Your task to perform on an android device: all mails in gmail Image 0: 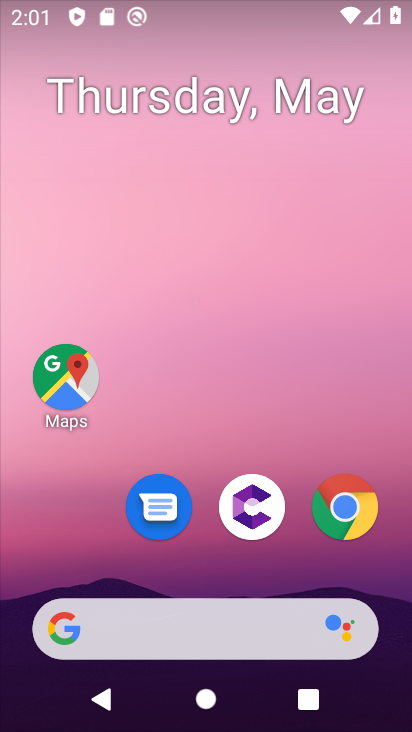
Step 0: drag from (316, 559) to (285, 140)
Your task to perform on an android device: all mails in gmail Image 1: 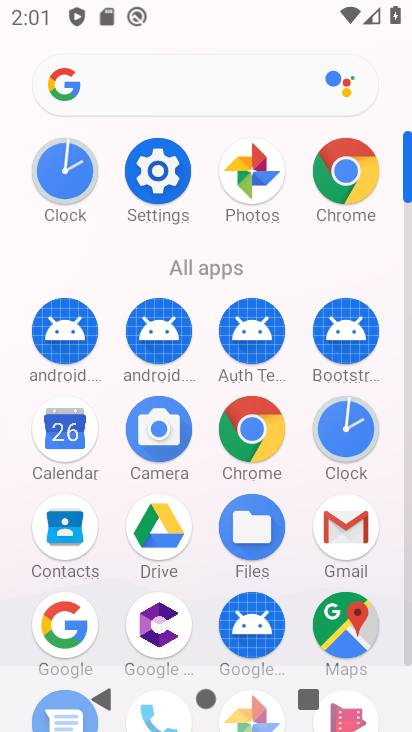
Step 1: click (336, 520)
Your task to perform on an android device: all mails in gmail Image 2: 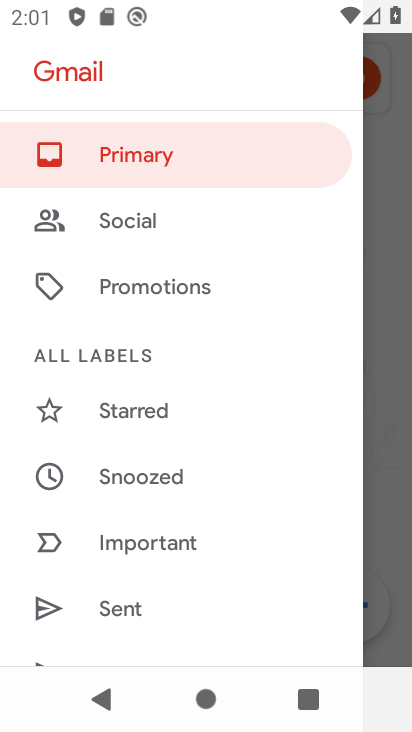
Step 2: drag from (245, 257) to (252, 65)
Your task to perform on an android device: all mails in gmail Image 3: 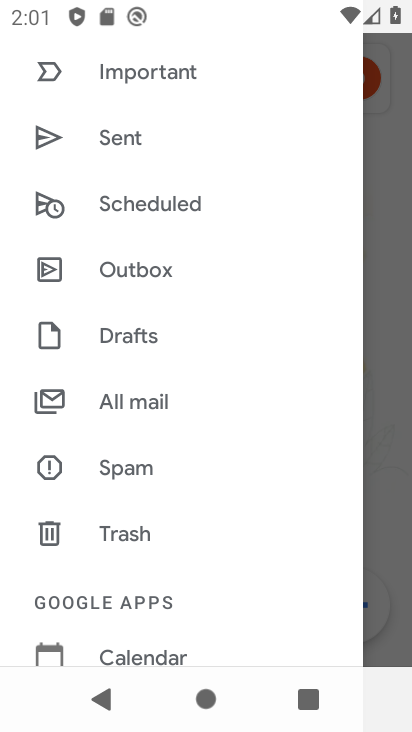
Step 3: click (133, 400)
Your task to perform on an android device: all mails in gmail Image 4: 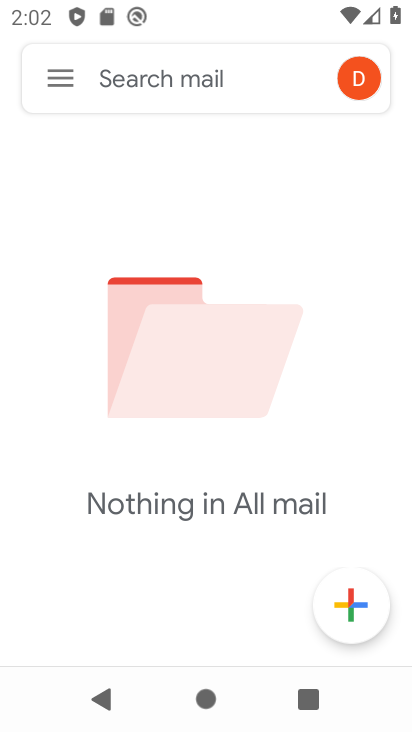
Step 4: task complete